Your task to perform on an android device: Open settings on Google Maps Image 0: 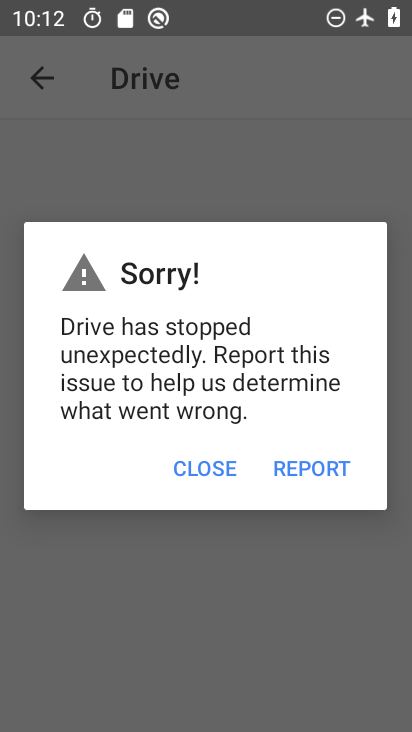
Step 0: drag from (191, 587) to (203, 288)
Your task to perform on an android device: Open settings on Google Maps Image 1: 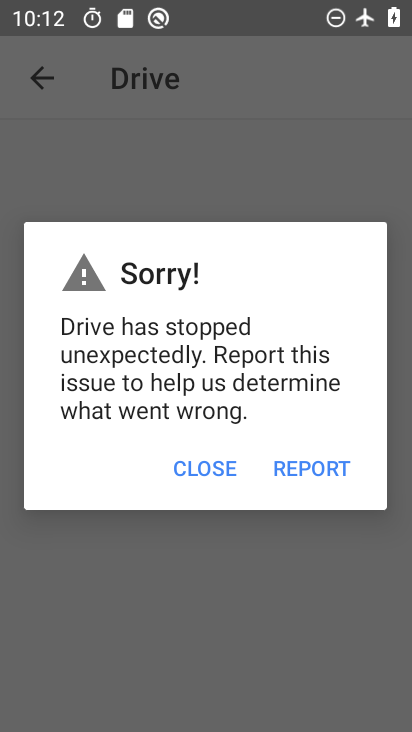
Step 1: press home button
Your task to perform on an android device: Open settings on Google Maps Image 2: 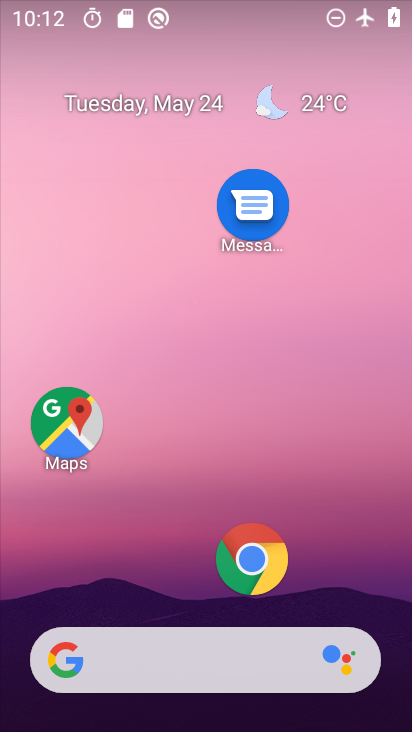
Step 2: click (54, 445)
Your task to perform on an android device: Open settings on Google Maps Image 3: 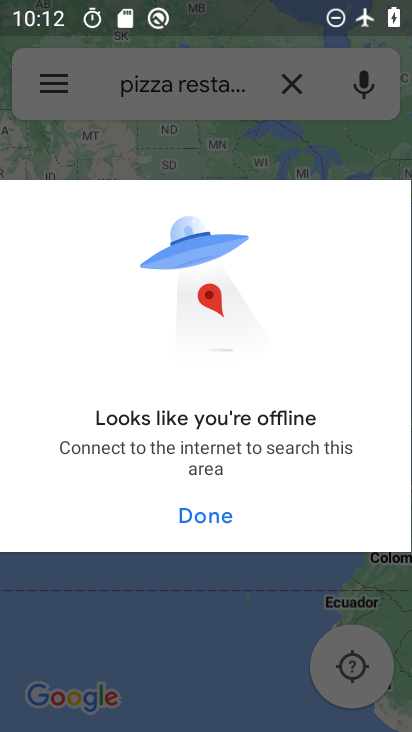
Step 3: click (226, 523)
Your task to perform on an android device: Open settings on Google Maps Image 4: 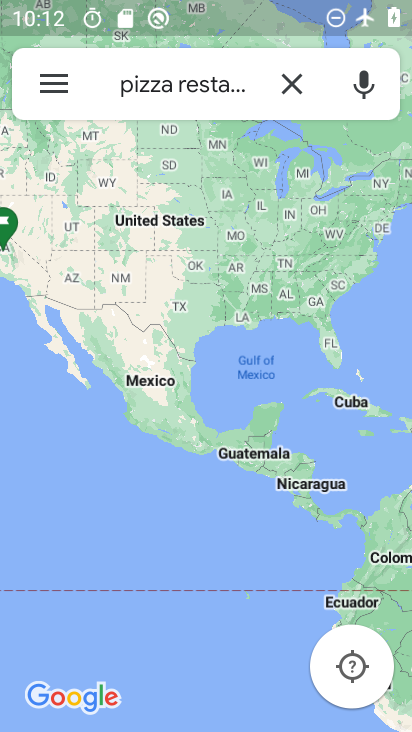
Step 4: click (64, 85)
Your task to perform on an android device: Open settings on Google Maps Image 5: 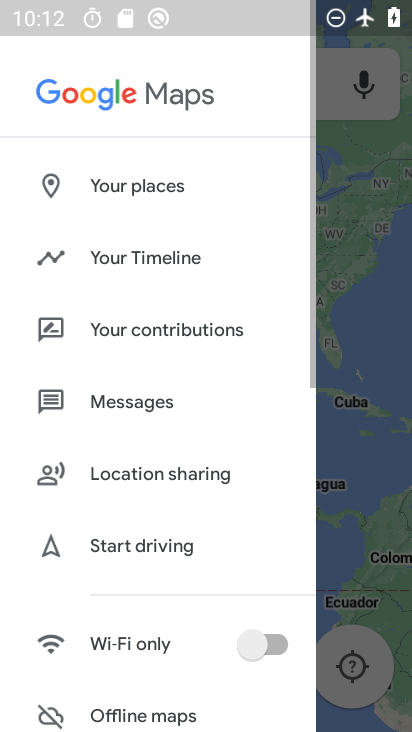
Step 5: drag from (173, 630) to (173, 263)
Your task to perform on an android device: Open settings on Google Maps Image 6: 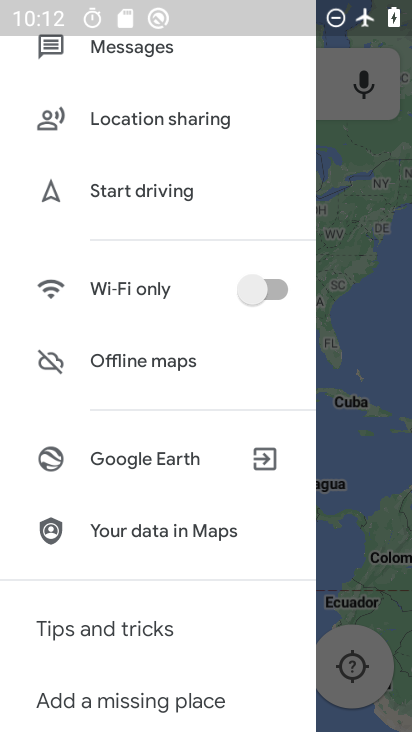
Step 6: drag from (141, 609) to (151, 264)
Your task to perform on an android device: Open settings on Google Maps Image 7: 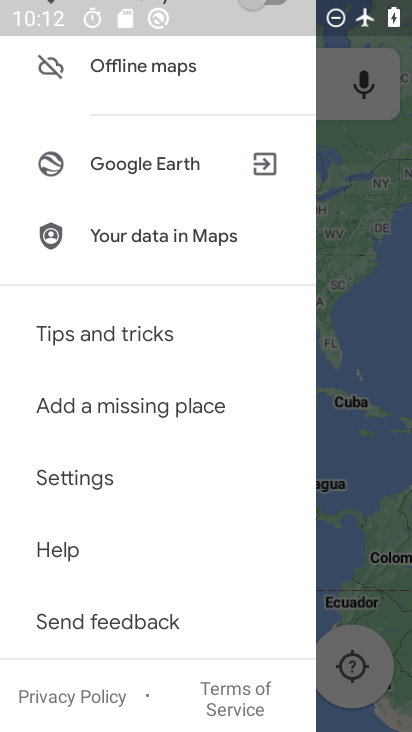
Step 7: click (75, 483)
Your task to perform on an android device: Open settings on Google Maps Image 8: 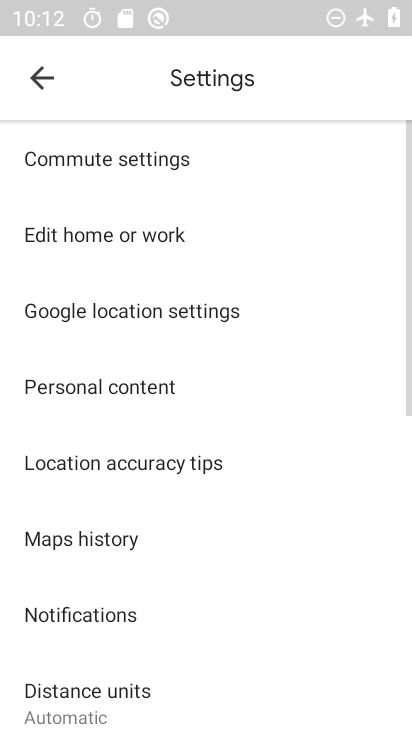
Step 8: task complete